Your task to perform on an android device: Open Android settings Image 0: 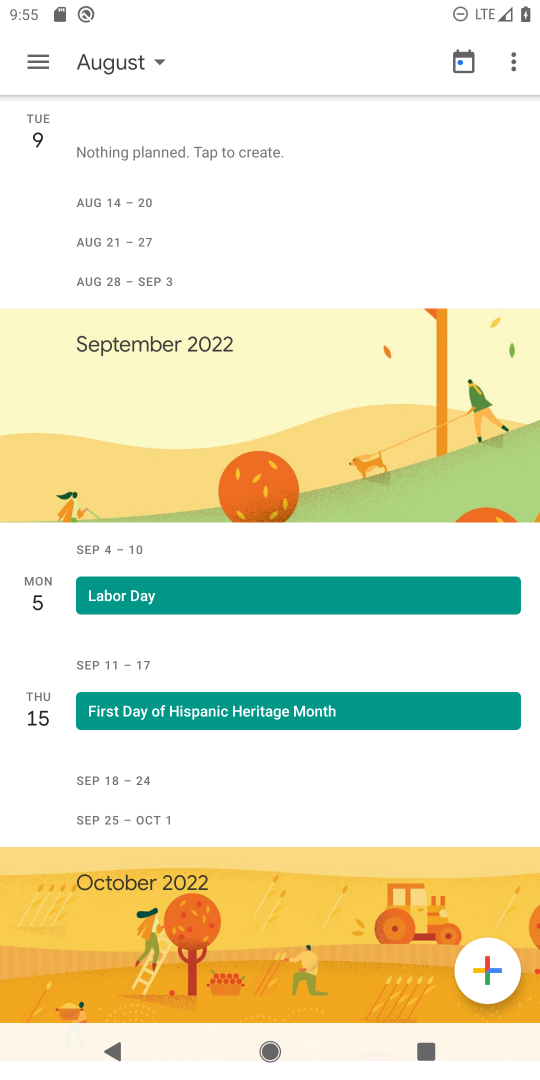
Step 0: press home button
Your task to perform on an android device: Open Android settings Image 1: 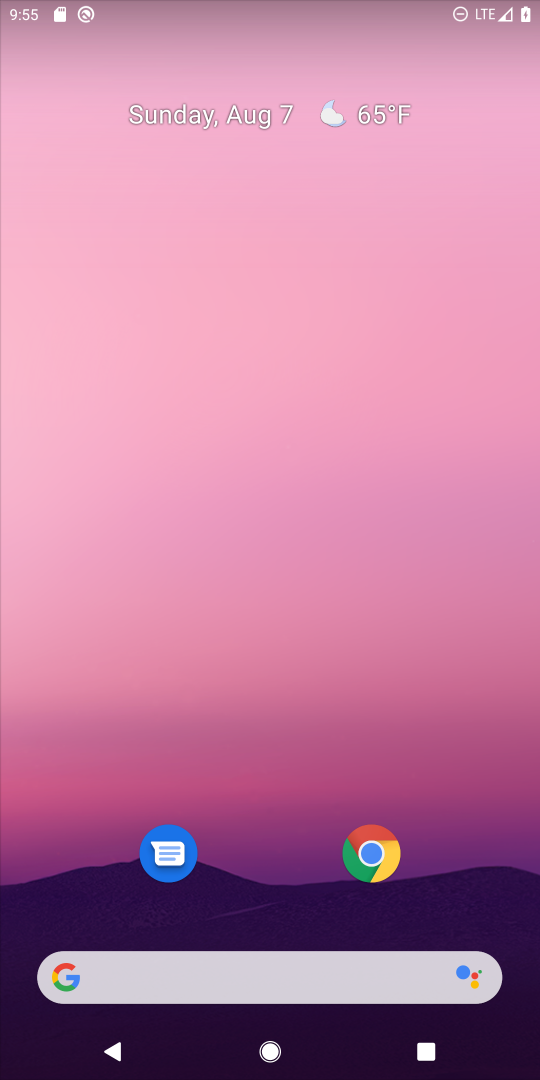
Step 1: drag from (303, 937) to (310, 246)
Your task to perform on an android device: Open Android settings Image 2: 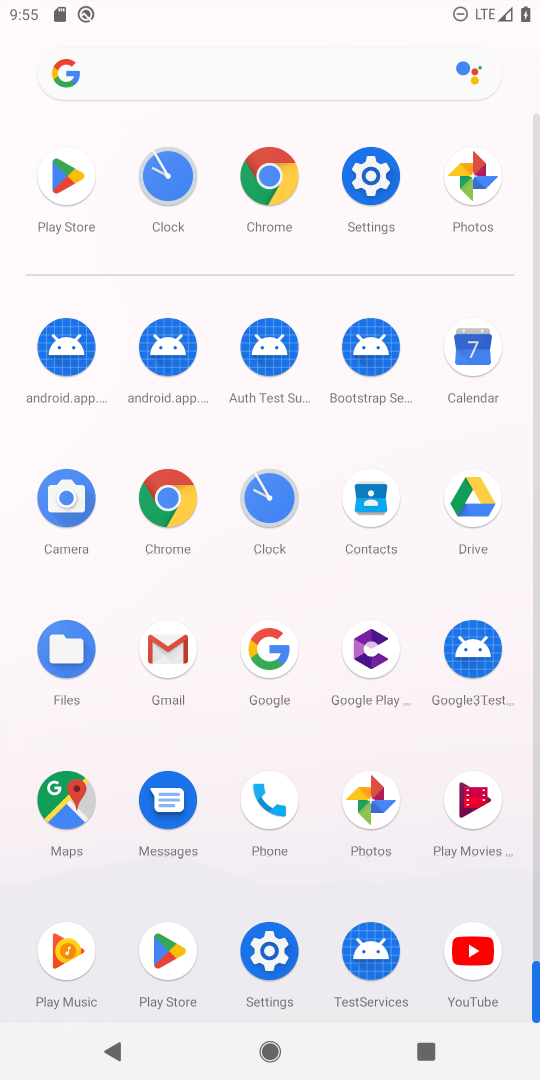
Step 2: click (381, 178)
Your task to perform on an android device: Open Android settings Image 3: 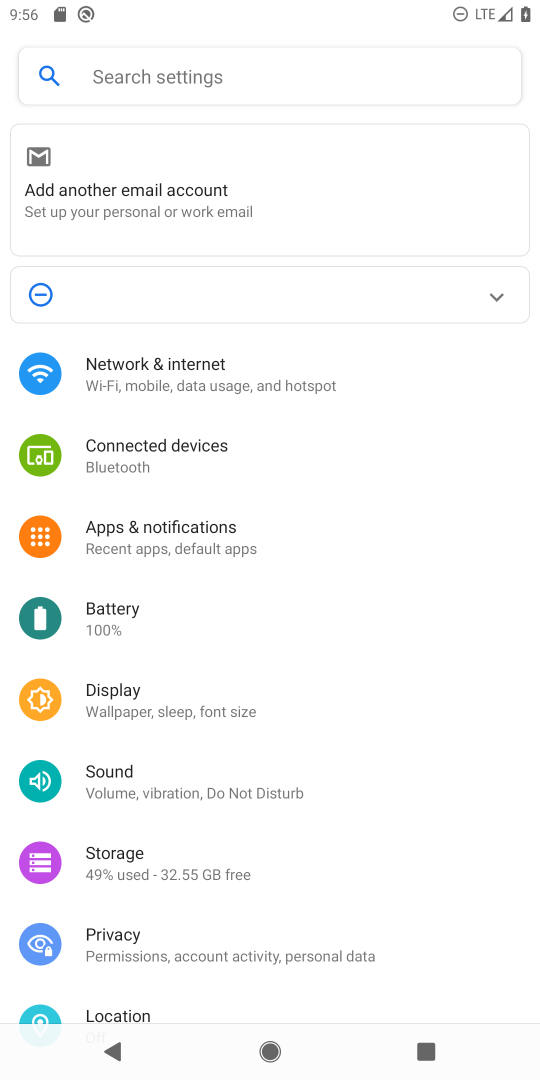
Step 3: task complete